Your task to perform on an android device: What is the recent news? Image 0: 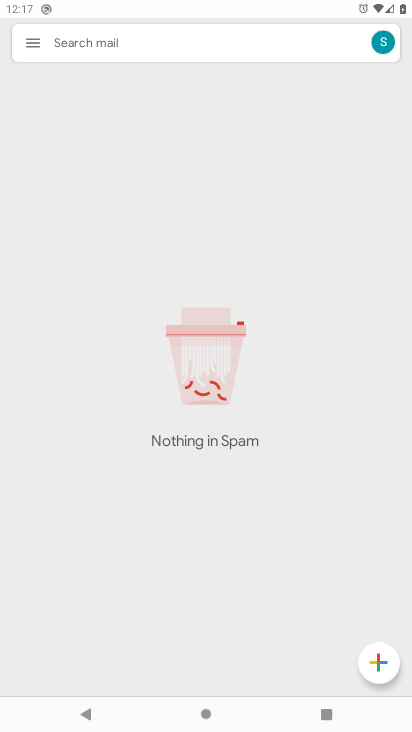
Step 0: press home button
Your task to perform on an android device: What is the recent news? Image 1: 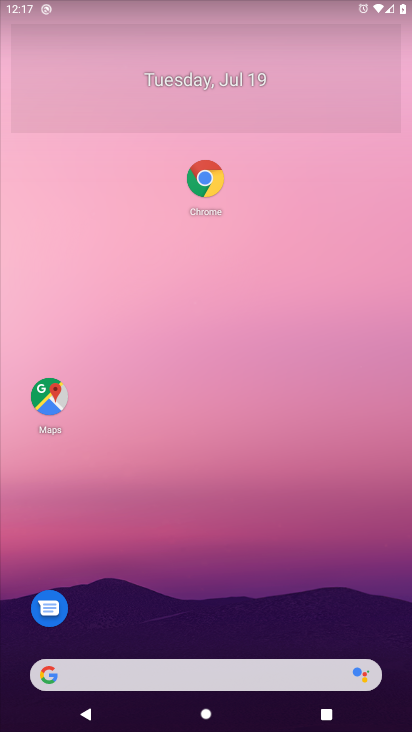
Step 1: click (72, 670)
Your task to perform on an android device: What is the recent news? Image 2: 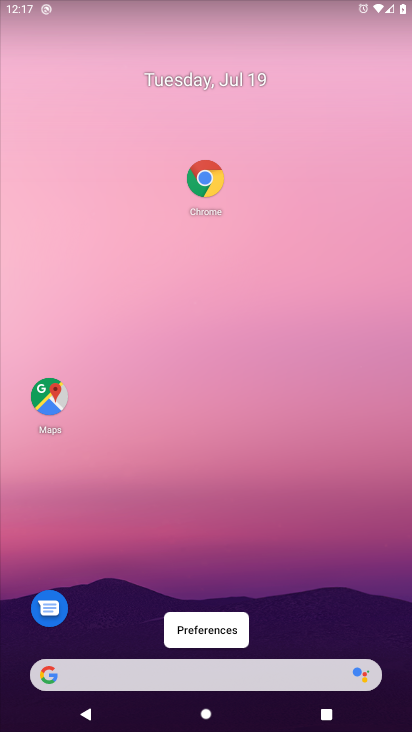
Step 2: click (69, 671)
Your task to perform on an android device: What is the recent news? Image 3: 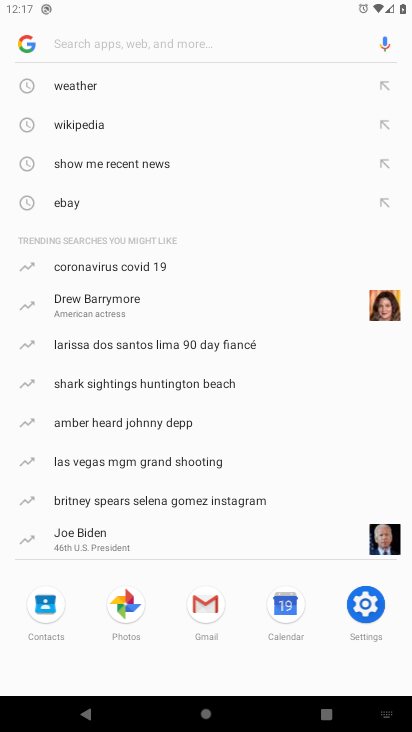
Step 3: type "What is the recent news?"
Your task to perform on an android device: What is the recent news? Image 4: 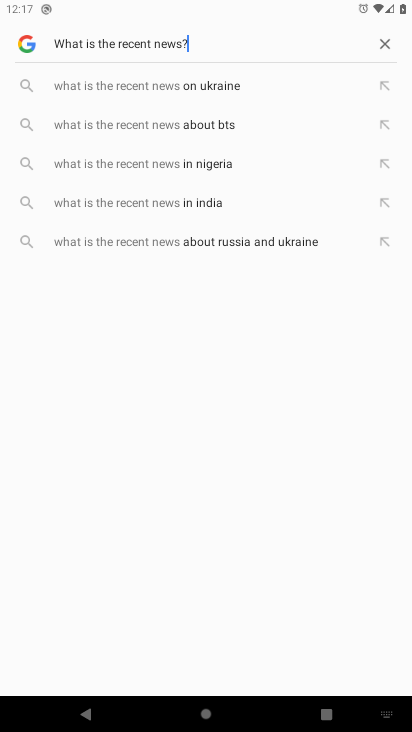
Step 4: type ""
Your task to perform on an android device: What is the recent news? Image 5: 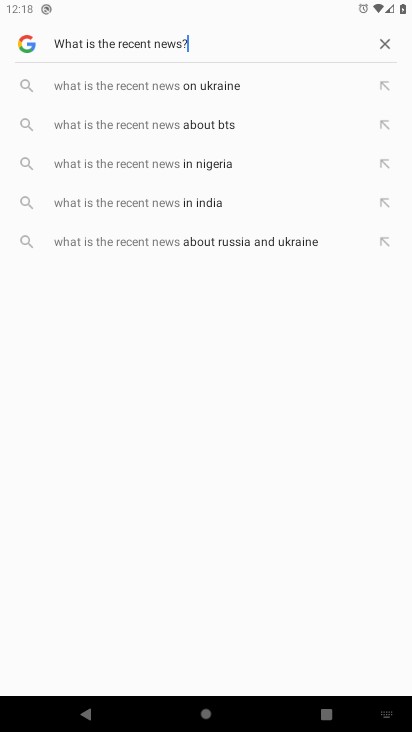
Step 5: task complete